Your task to perform on an android device: turn on data saver in the chrome app Image 0: 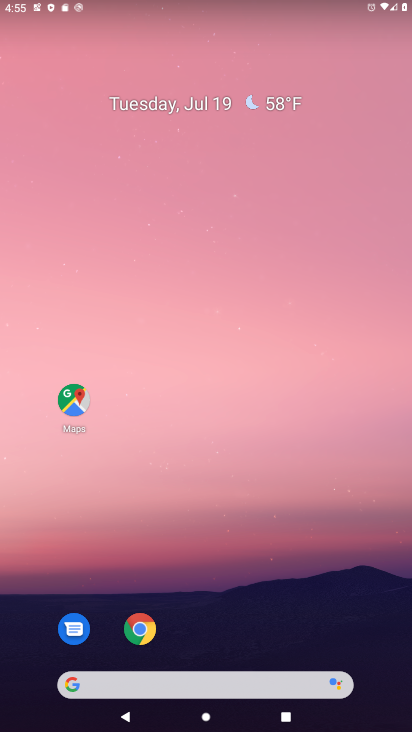
Step 0: drag from (137, 575) to (166, 9)
Your task to perform on an android device: turn on data saver in the chrome app Image 1: 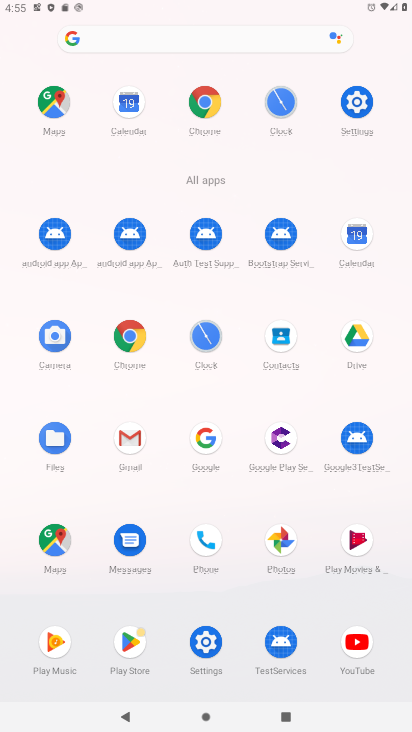
Step 1: click (197, 103)
Your task to perform on an android device: turn on data saver in the chrome app Image 2: 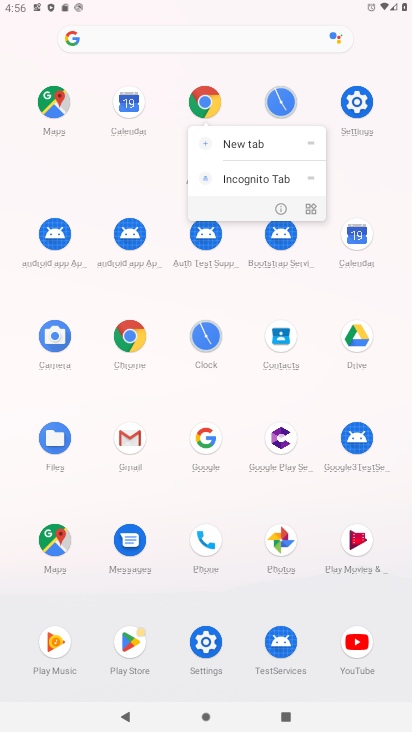
Step 2: click (199, 104)
Your task to perform on an android device: turn on data saver in the chrome app Image 3: 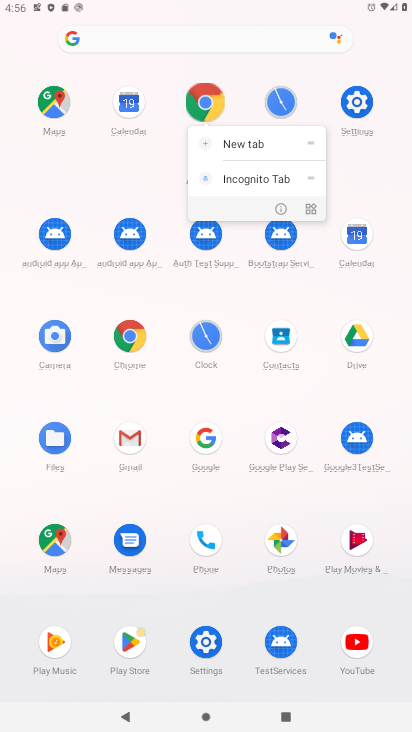
Step 3: click (199, 104)
Your task to perform on an android device: turn on data saver in the chrome app Image 4: 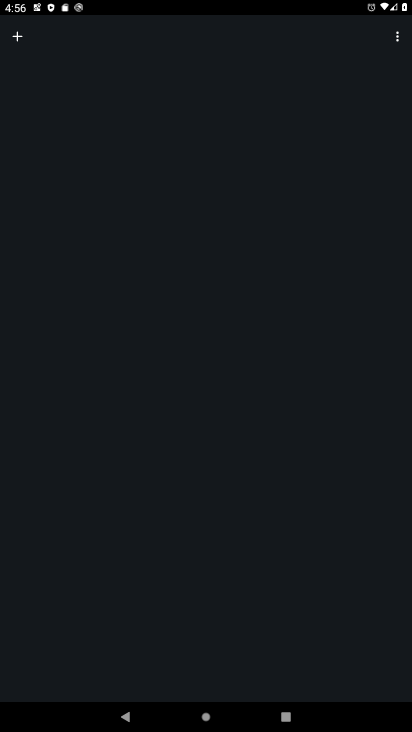
Step 4: click (402, 33)
Your task to perform on an android device: turn on data saver in the chrome app Image 5: 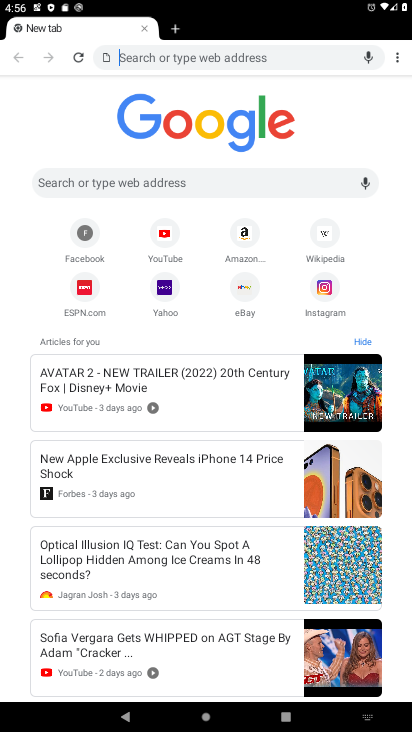
Step 5: drag from (394, 59) to (275, 268)
Your task to perform on an android device: turn on data saver in the chrome app Image 6: 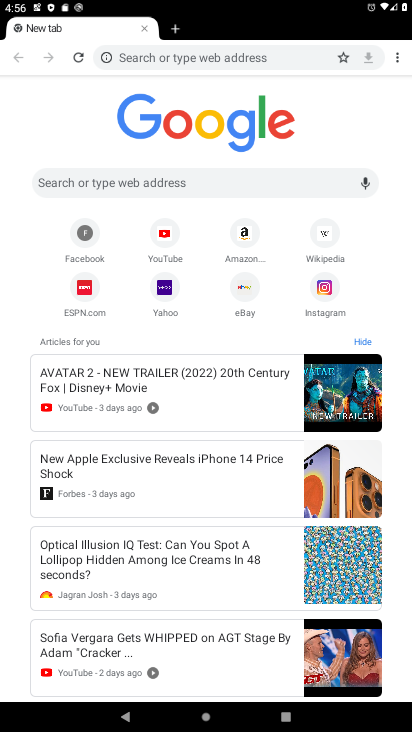
Step 6: click (277, 264)
Your task to perform on an android device: turn on data saver in the chrome app Image 7: 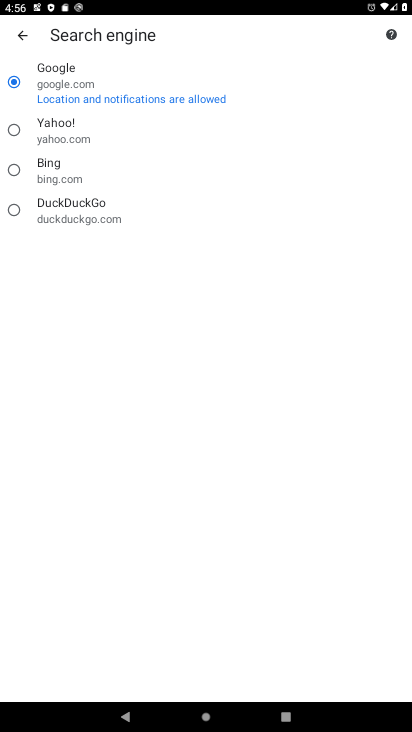
Step 7: click (16, 34)
Your task to perform on an android device: turn on data saver in the chrome app Image 8: 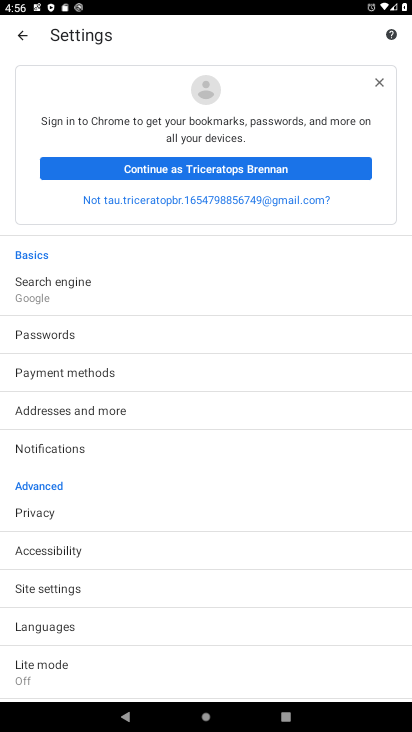
Step 8: click (44, 655)
Your task to perform on an android device: turn on data saver in the chrome app Image 9: 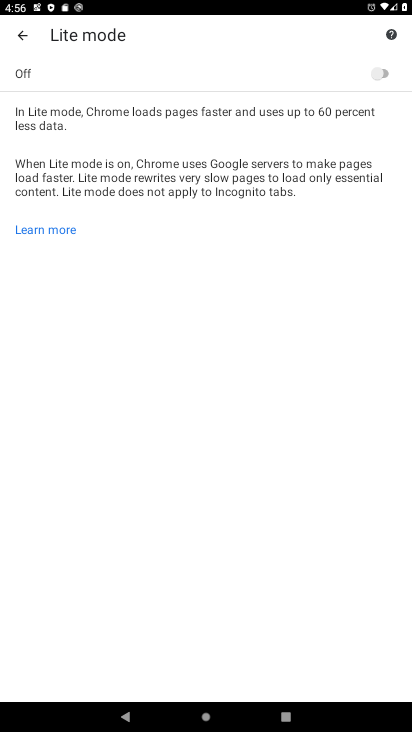
Step 9: click (386, 77)
Your task to perform on an android device: turn on data saver in the chrome app Image 10: 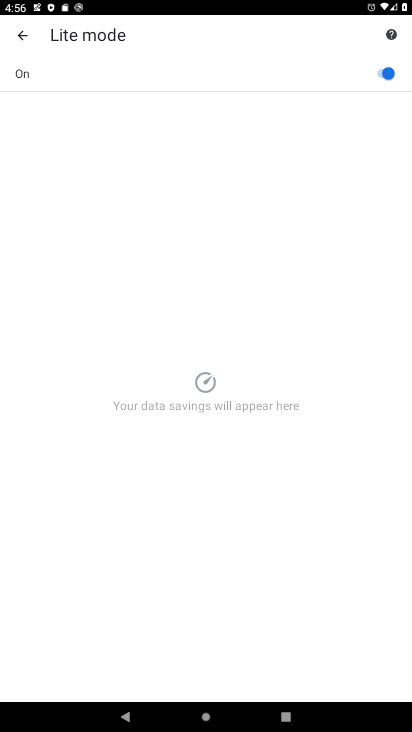
Step 10: task complete